Your task to perform on an android device: change alarm snooze length Image 0: 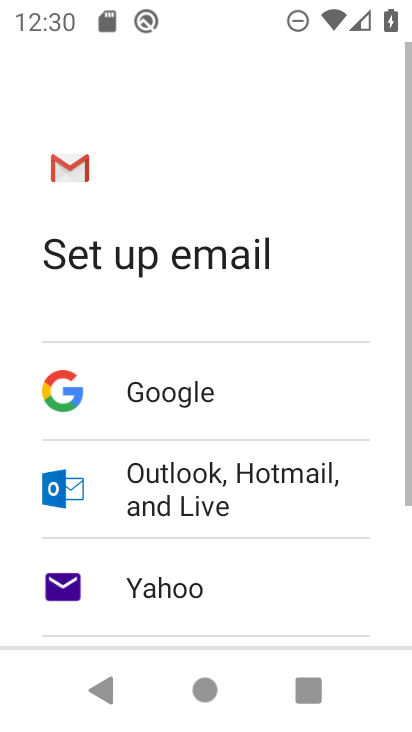
Step 0: press home button
Your task to perform on an android device: change alarm snooze length Image 1: 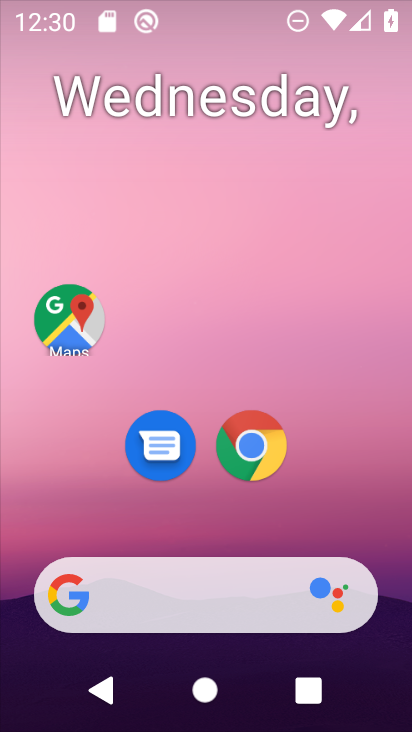
Step 1: drag from (394, 620) to (226, 26)
Your task to perform on an android device: change alarm snooze length Image 2: 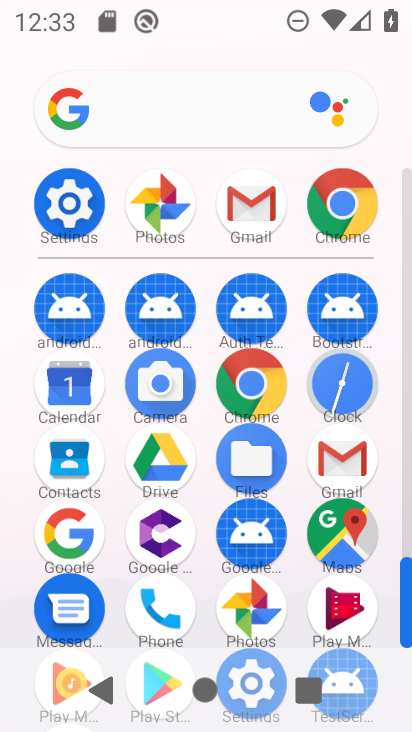
Step 2: click (340, 375)
Your task to perform on an android device: change alarm snooze length Image 3: 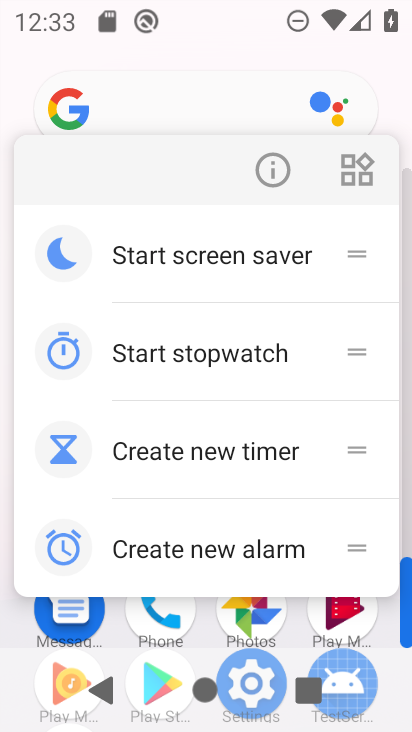
Step 3: click (2, 165)
Your task to perform on an android device: change alarm snooze length Image 4: 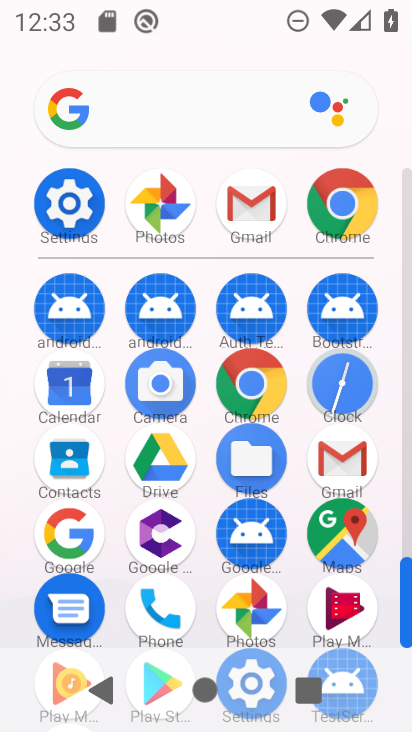
Step 4: click (351, 419)
Your task to perform on an android device: change alarm snooze length Image 5: 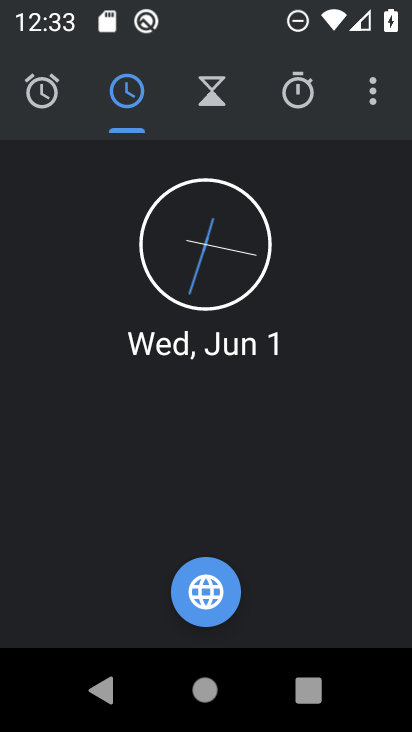
Step 5: click (380, 79)
Your task to perform on an android device: change alarm snooze length Image 6: 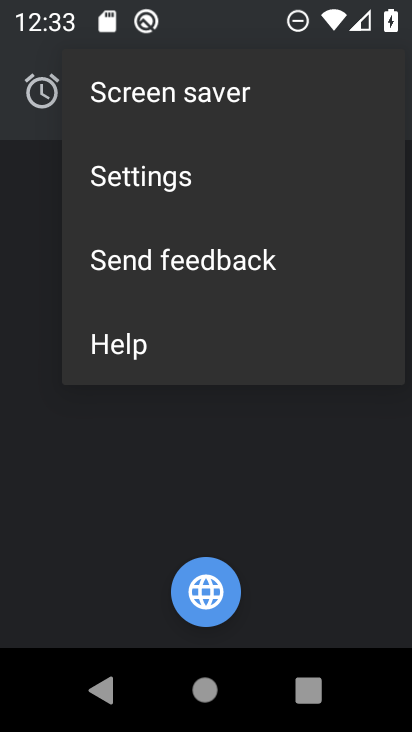
Step 6: click (210, 192)
Your task to perform on an android device: change alarm snooze length Image 7: 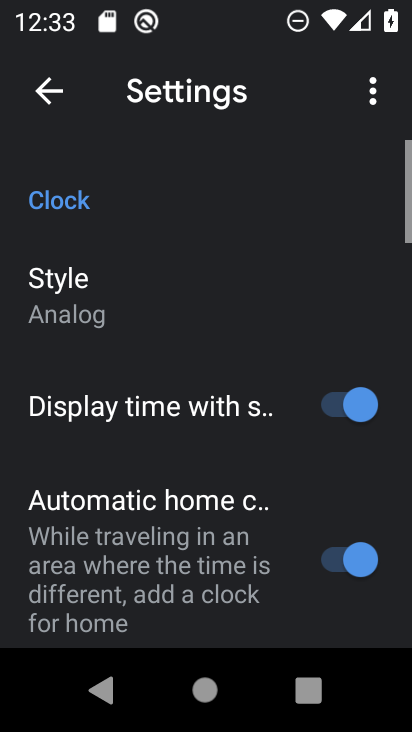
Step 7: click (168, 579)
Your task to perform on an android device: change alarm snooze length Image 8: 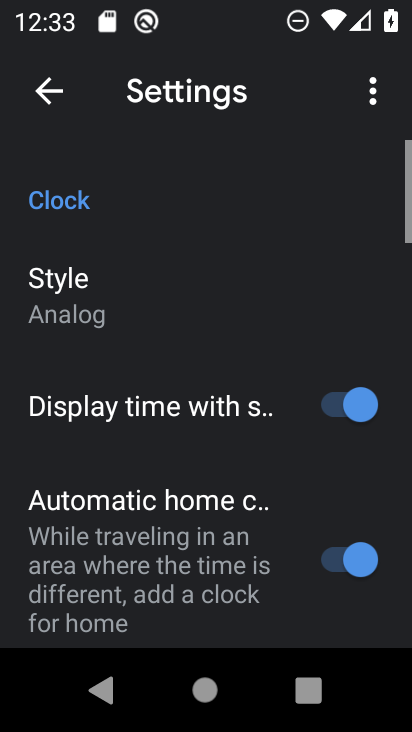
Step 8: drag from (180, 512) to (138, 5)
Your task to perform on an android device: change alarm snooze length Image 9: 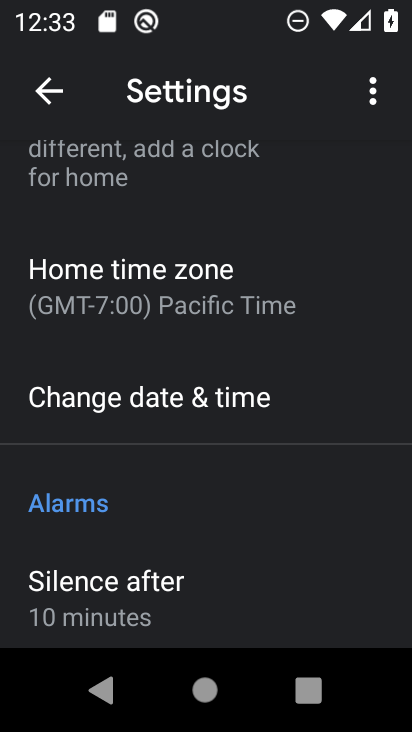
Step 9: drag from (177, 537) to (256, 126)
Your task to perform on an android device: change alarm snooze length Image 10: 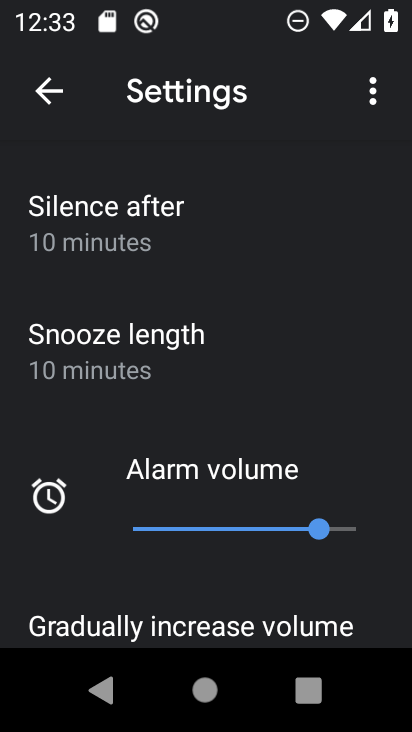
Step 10: click (176, 365)
Your task to perform on an android device: change alarm snooze length Image 11: 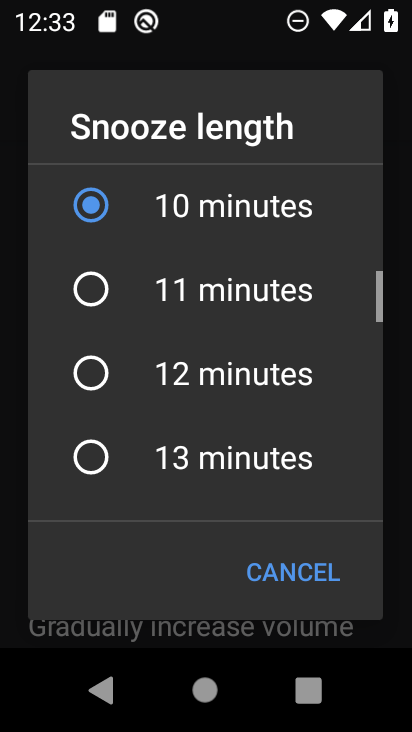
Step 11: click (218, 442)
Your task to perform on an android device: change alarm snooze length Image 12: 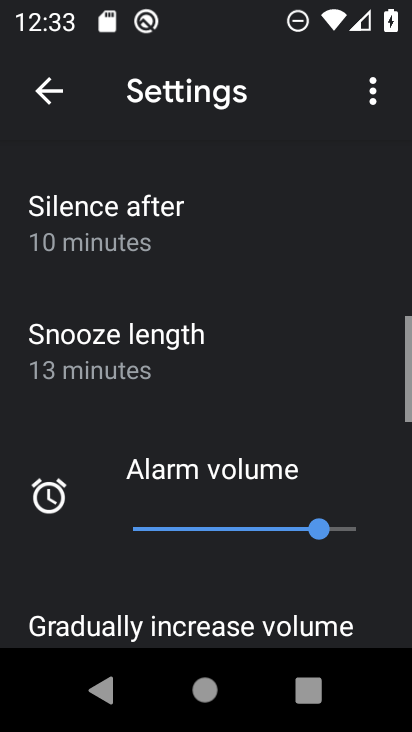
Step 12: task complete